Your task to perform on an android device: Check the news Image 0: 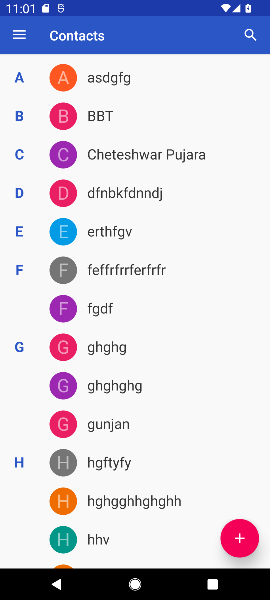
Step 0: press home button
Your task to perform on an android device: Check the news Image 1: 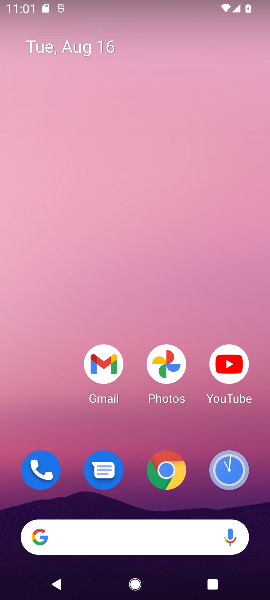
Step 1: drag from (66, 376) to (52, 76)
Your task to perform on an android device: Check the news Image 2: 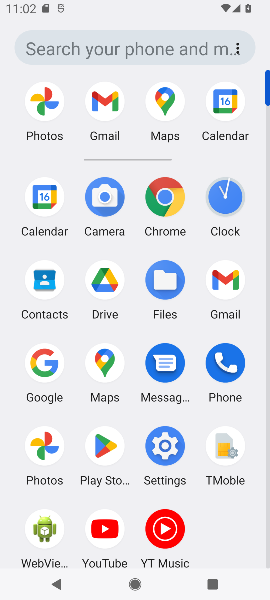
Step 2: press back button
Your task to perform on an android device: Check the news Image 3: 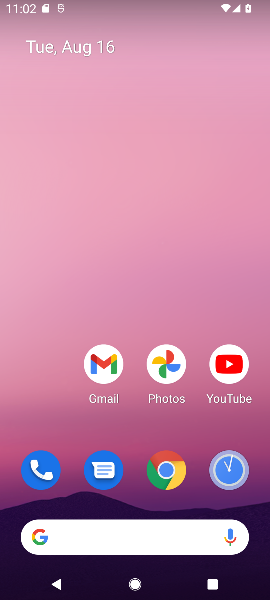
Step 3: click (124, 540)
Your task to perform on an android device: Check the news Image 4: 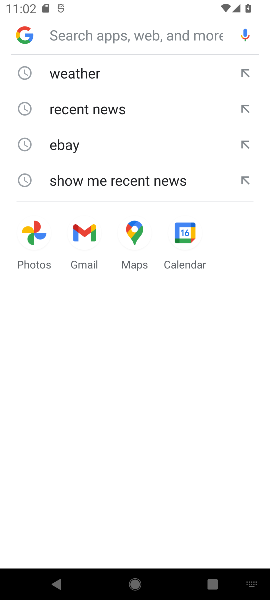
Step 4: click (104, 101)
Your task to perform on an android device: Check the news Image 5: 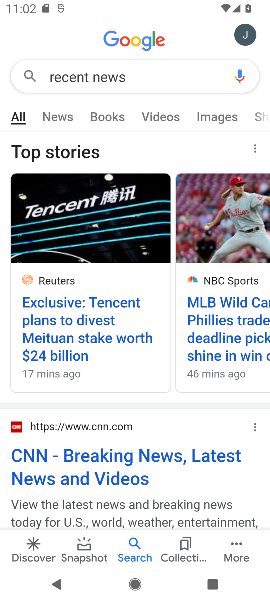
Step 5: click (56, 116)
Your task to perform on an android device: Check the news Image 6: 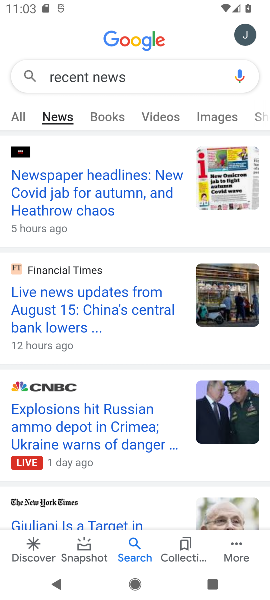
Step 6: task complete